Your task to perform on an android device: Open settings on Google Maps Image 0: 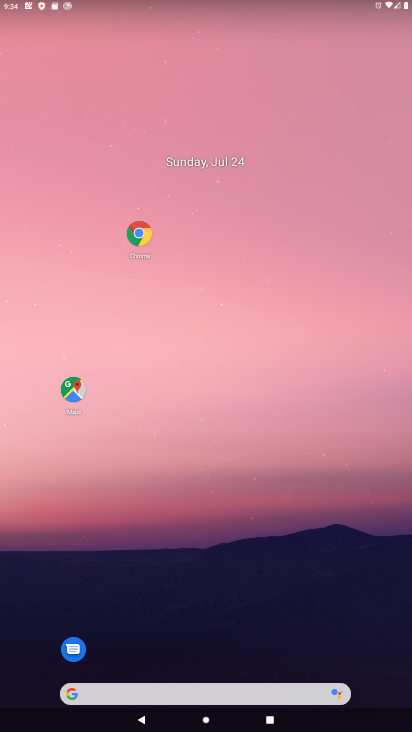
Step 0: click (69, 398)
Your task to perform on an android device: Open settings on Google Maps Image 1: 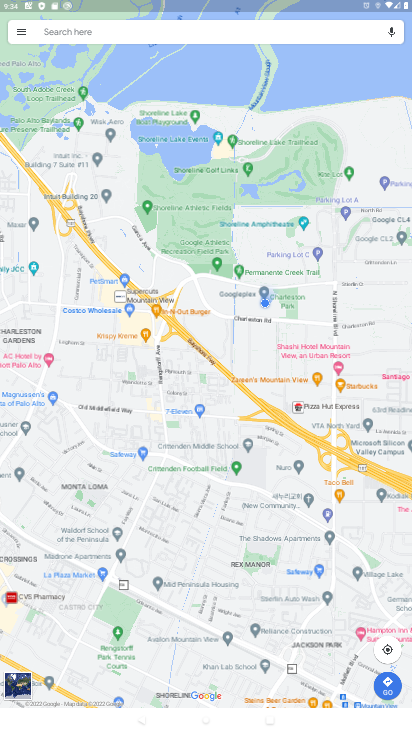
Step 1: click (149, 39)
Your task to perform on an android device: Open settings on Google Maps Image 2: 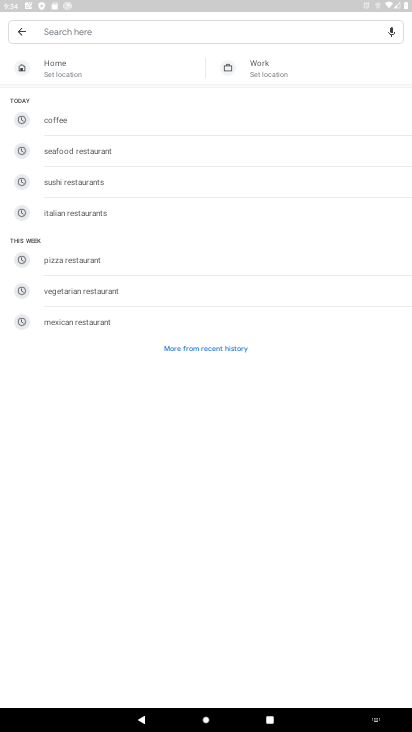
Step 2: click (16, 32)
Your task to perform on an android device: Open settings on Google Maps Image 3: 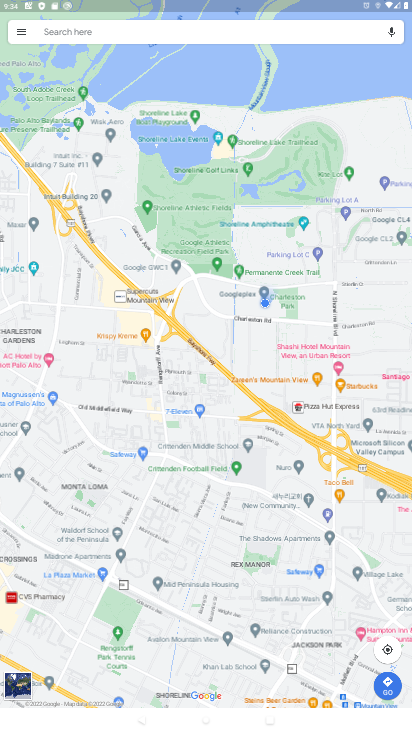
Step 3: click (16, 32)
Your task to perform on an android device: Open settings on Google Maps Image 4: 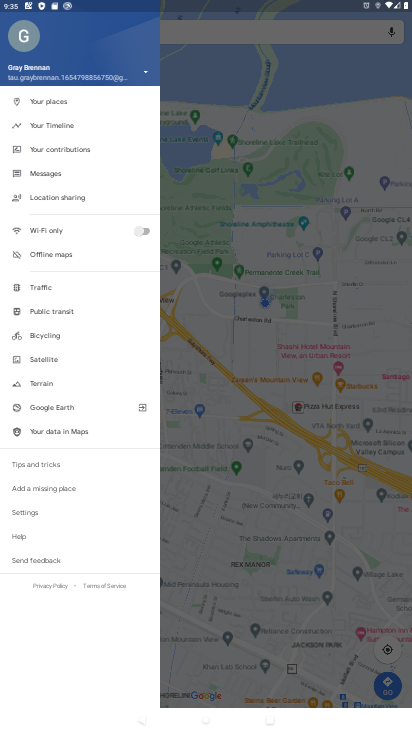
Step 4: click (23, 507)
Your task to perform on an android device: Open settings on Google Maps Image 5: 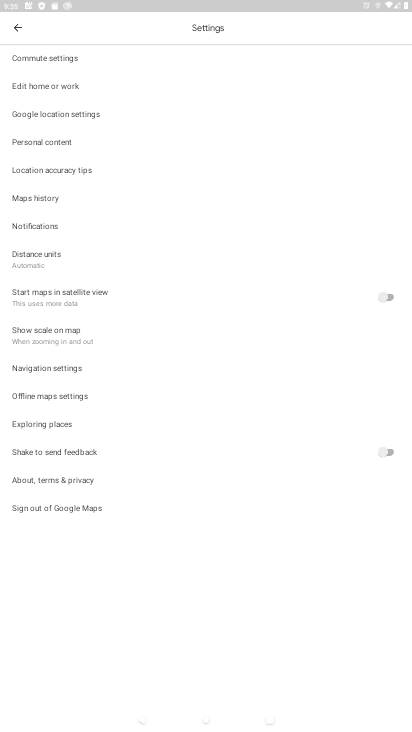
Step 5: task complete